Your task to perform on an android device: change notification settings in the gmail app Image 0: 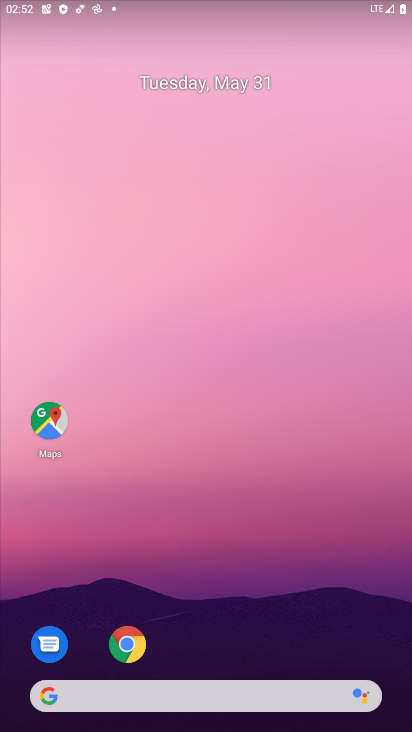
Step 0: drag from (270, 549) to (254, 90)
Your task to perform on an android device: change notification settings in the gmail app Image 1: 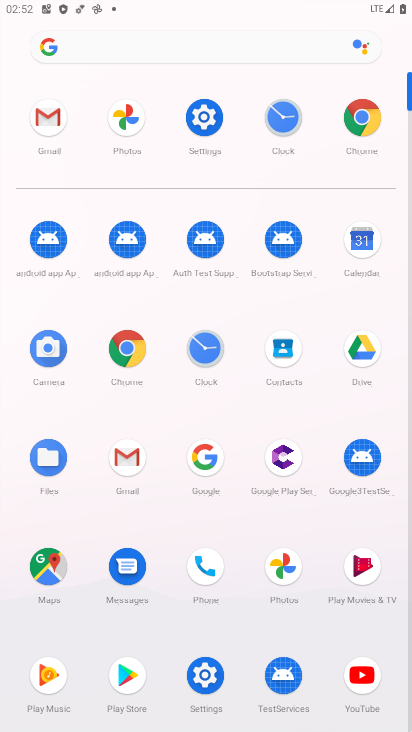
Step 1: click (133, 462)
Your task to perform on an android device: change notification settings in the gmail app Image 2: 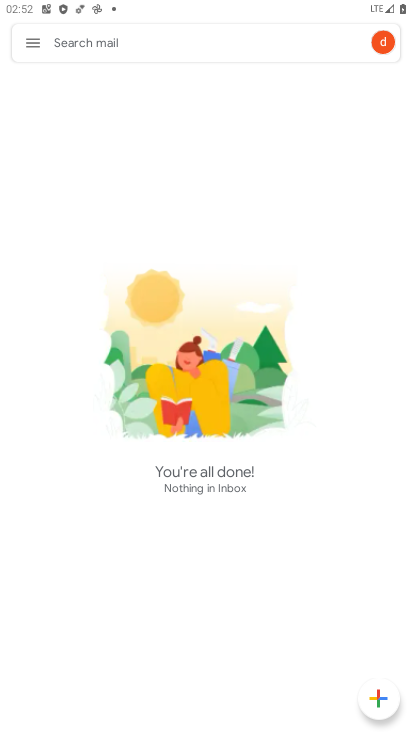
Step 2: click (35, 37)
Your task to perform on an android device: change notification settings in the gmail app Image 3: 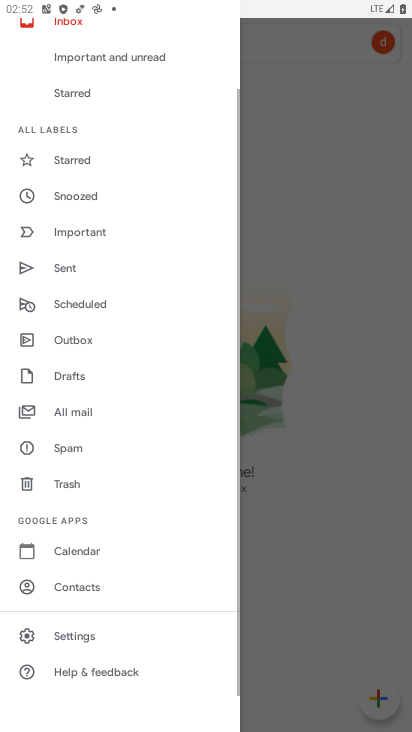
Step 3: click (84, 638)
Your task to perform on an android device: change notification settings in the gmail app Image 4: 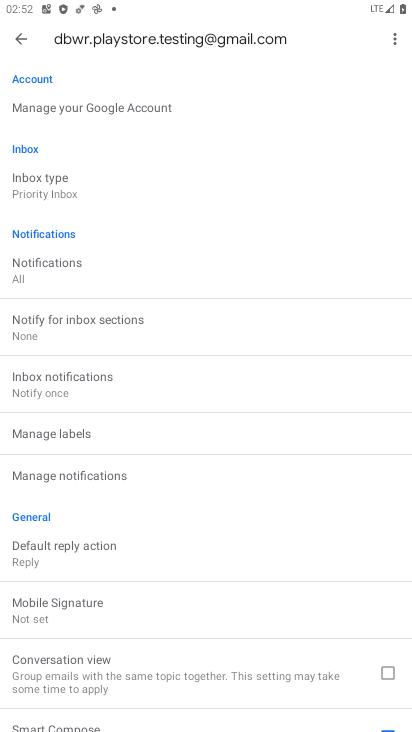
Step 4: drag from (213, 585) to (234, 160)
Your task to perform on an android device: change notification settings in the gmail app Image 5: 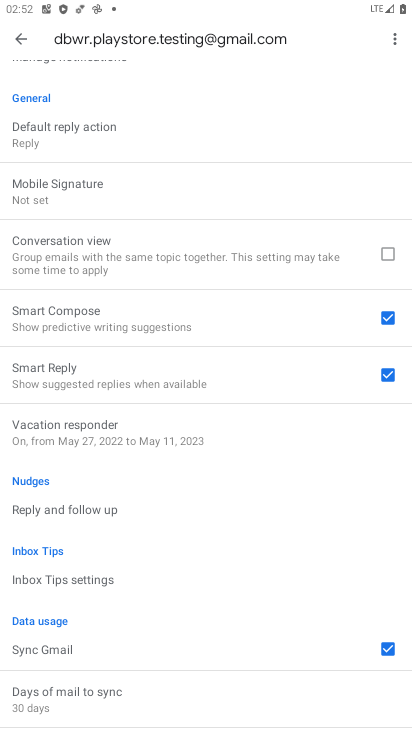
Step 5: drag from (212, 193) to (184, 507)
Your task to perform on an android device: change notification settings in the gmail app Image 6: 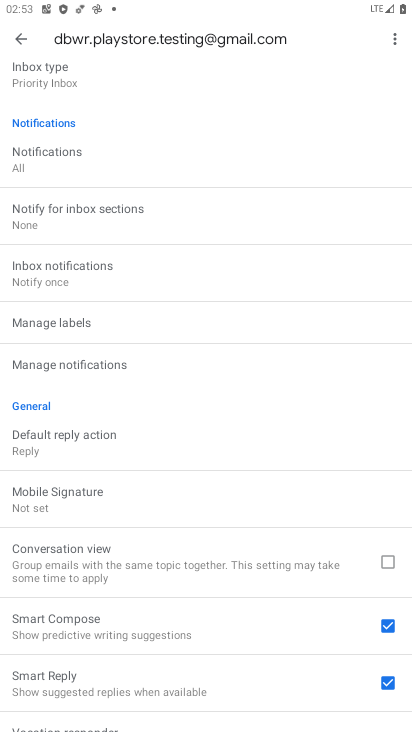
Step 6: click (84, 372)
Your task to perform on an android device: change notification settings in the gmail app Image 7: 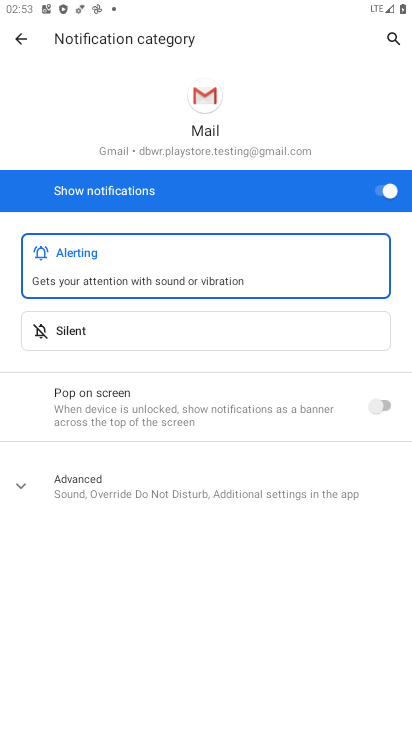
Step 7: click (383, 193)
Your task to perform on an android device: change notification settings in the gmail app Image 8: 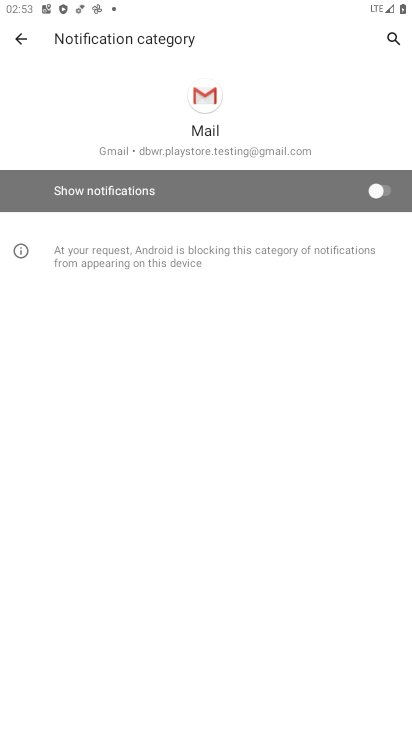
Step 8: task complete